Your task to perform on an android device: Open the phone app and click the voicemail tab. Image 0: 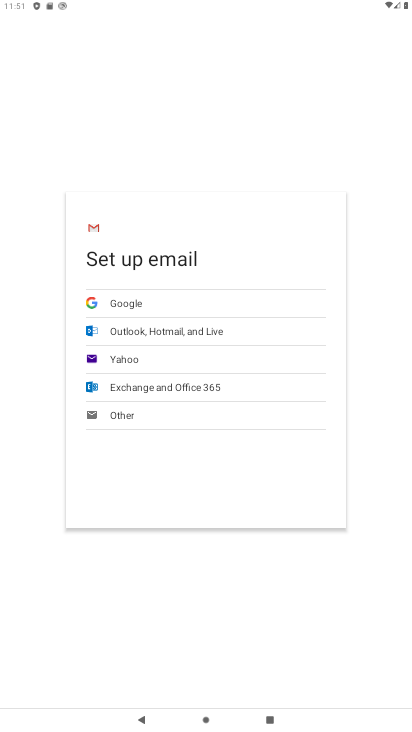
Step 0: press home button
Your task to perform on an android device: Open the phone app and click the voicemail tab. Image 1: 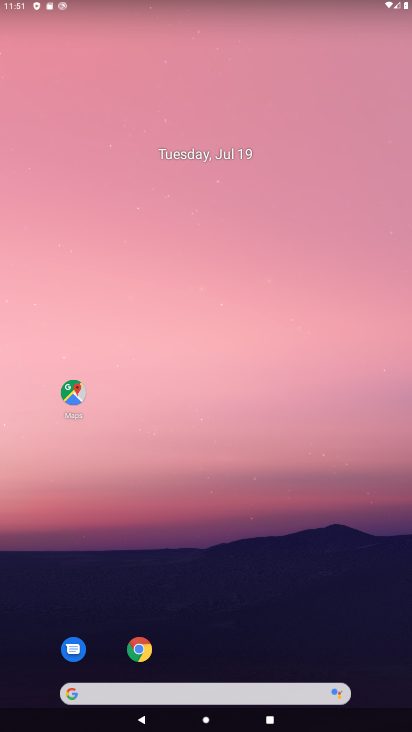
Step 1: drag from (195, 640) to (195, 4)
Your task to perform on an android device: Open the phone app and click the voicemail tab. Image 2: 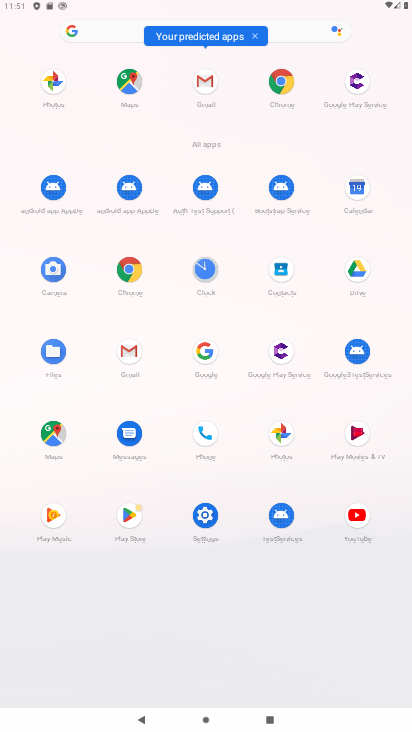
Step 2: click (206, 432)
Your task to perform on an android device: Open the phone app and click the voicemail tab. Image 3: 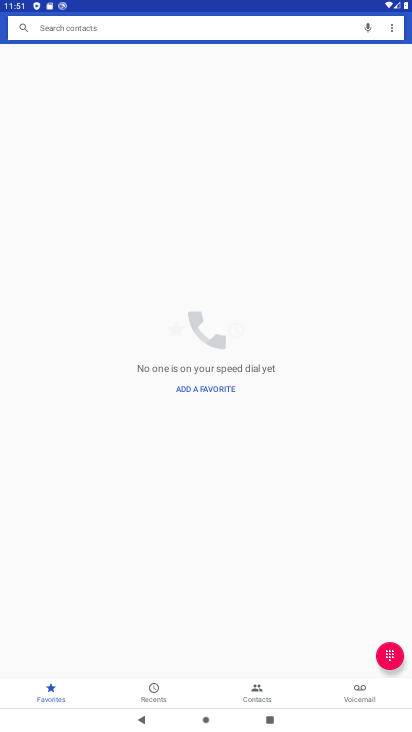
Step 3: click (342, 688)
Your task to perform on an android device: Open the phone app and click the voicemail tab. Image 4: 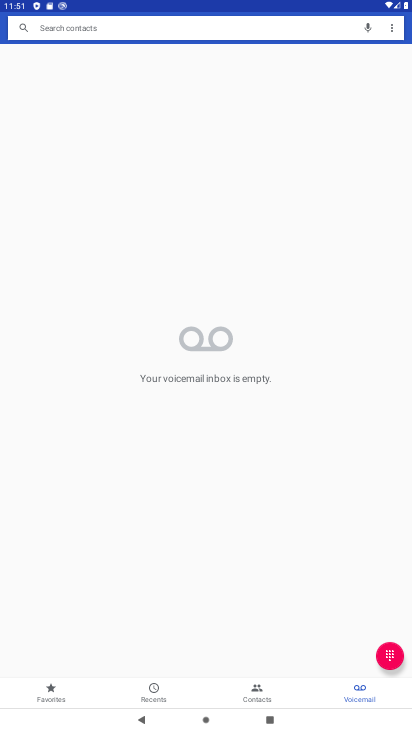
Step 4: task complete